Your task to perform on an android device: toggle sleep mode Image 0: 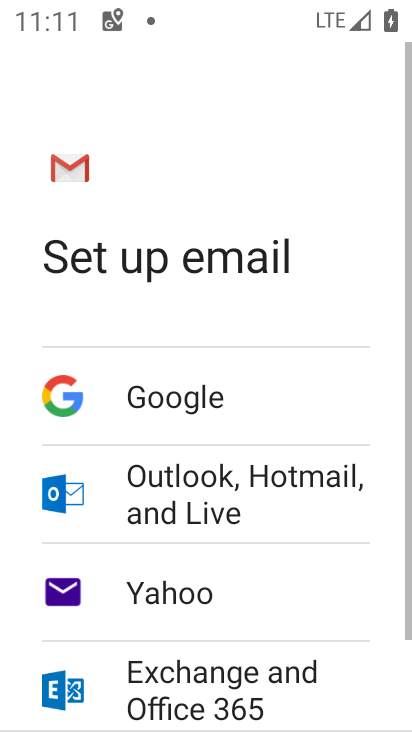
Step 0: press home button
Your task to perform on an android device: toggle sleep mode Image 1: 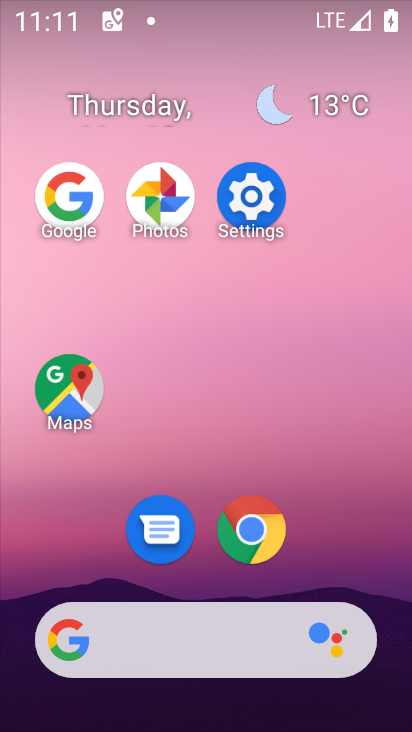
Step 1: click (264, 195)
Your task to perform on an android device: toggle sleep mode Image 2: 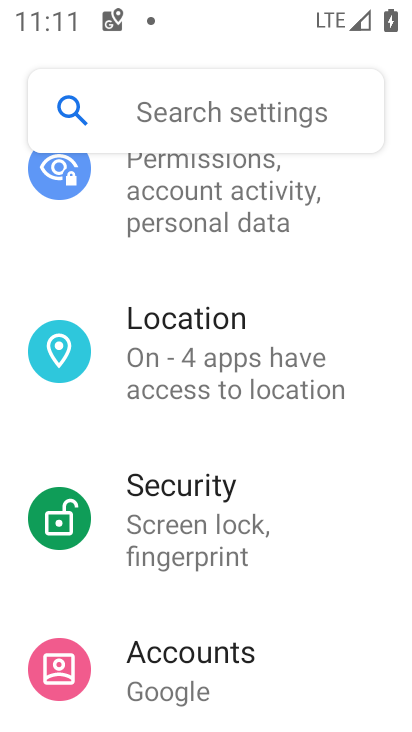
Step 2: drag from (313, 276) to (363, 591)
Your task to perform on an android device: toggle sleep mode Image 3: 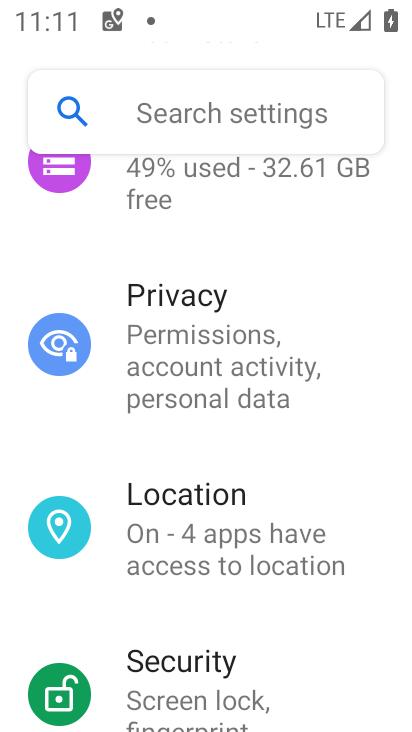
Step 3: drag from (304, 251) to (349, 633)
Your task to perform on an android device: toggle sleep mode Image 4: 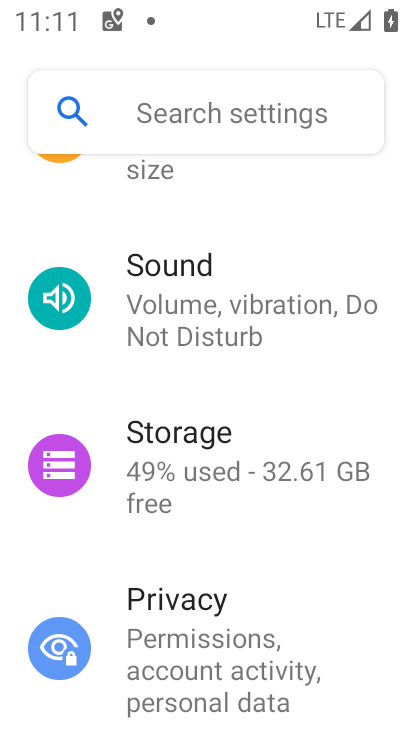
Step 4: drag from (263, 216) to (281, 467)
Your task to perform on an android device: toggle sleep mode Image 5: 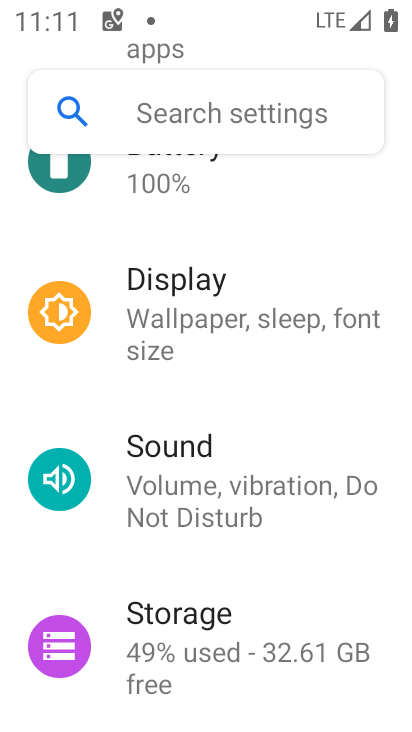
Step 5: click (218, 295)
Your task to perform on an android device: toggle sleep mode Image 6: 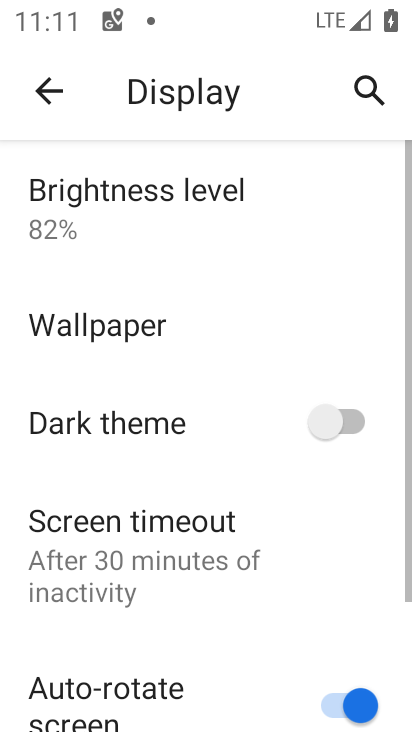
Step 6: click (82, 555)
Your task to perform on an android device: toggle sleep mode Image 7: 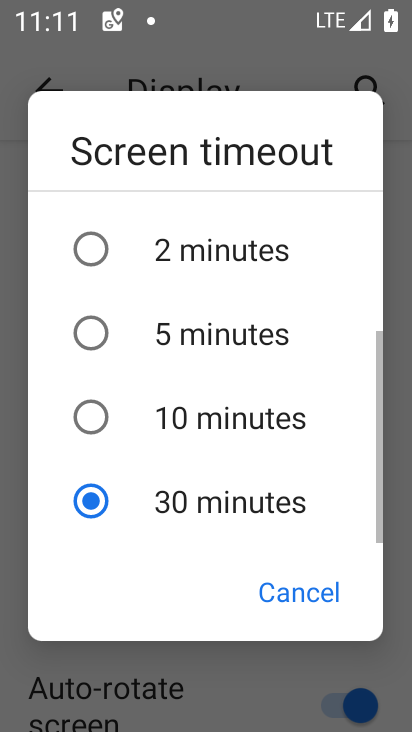
Step 7: click (131, 245)
Your task to perform on an android device: toggle sleep mode Image 8: 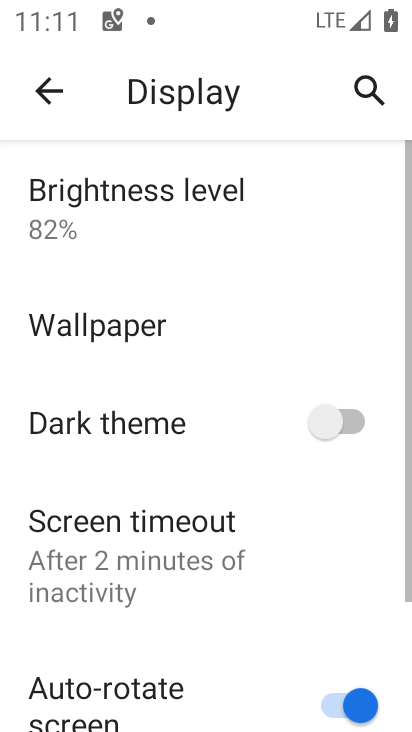
Step 8: task complete